Your task to perform on an android device: Open Google Chrome and open the bookmarks view Image 0: 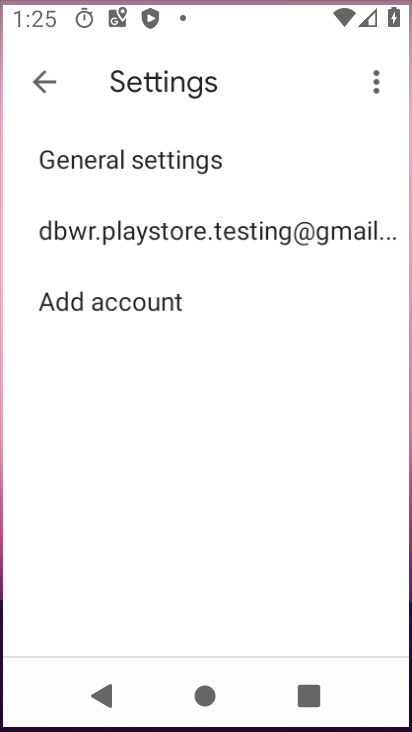
Step 0: press home button
Your task to perform on an android device: Open Google Chrome and open the bookmarks view Image 1: 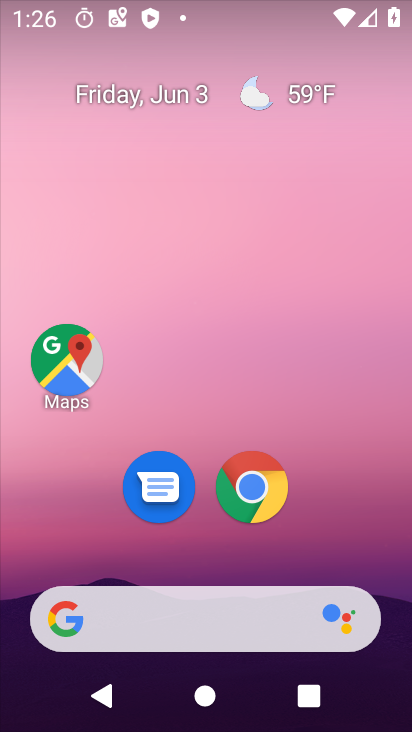
Step 1: drag from (209, 567) to (265, 121)
Your task to perform on an android device: Open Google Chrome and open the bookmarks view Image 2: 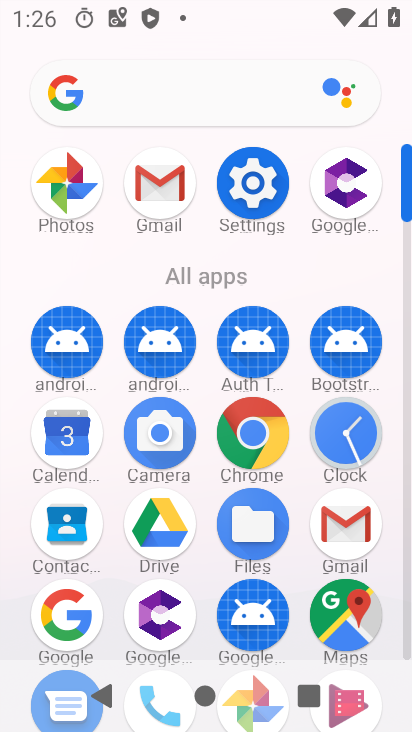
Step 2: click (250, 432)
Your task to perform on an android device: Open Google Chrome and open the bookmarks view Image 3: 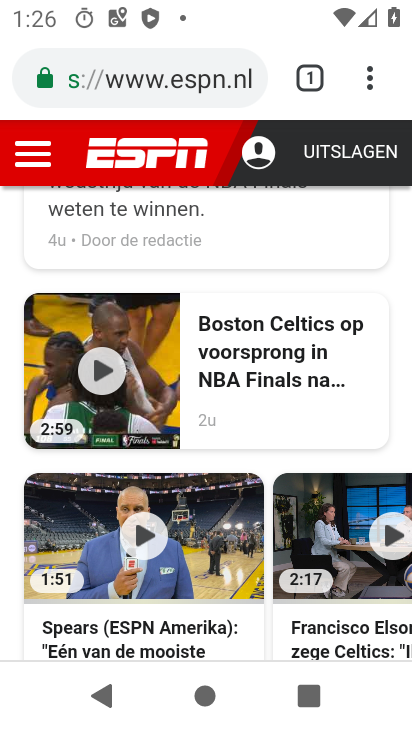
Step 3: click (374, 71)
Your task to perform on an android device: Open Google Chrome and open the bookmarks view Image 4: 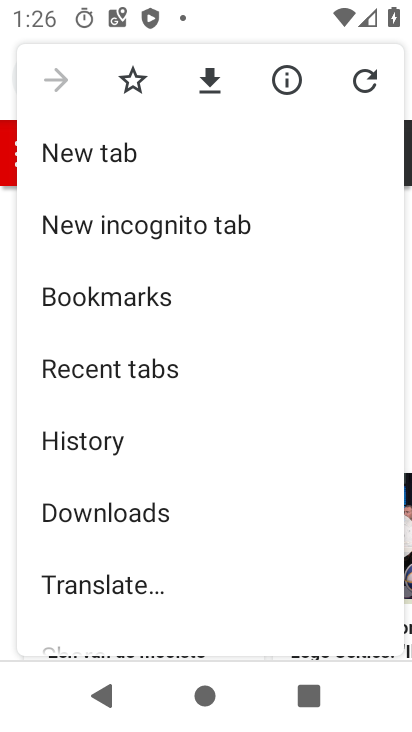
Step 4: drag from (205, 583) to (270, 65)
Your task to perform on an android device: Open Google Chrome and open the bookmarks view Image 5: 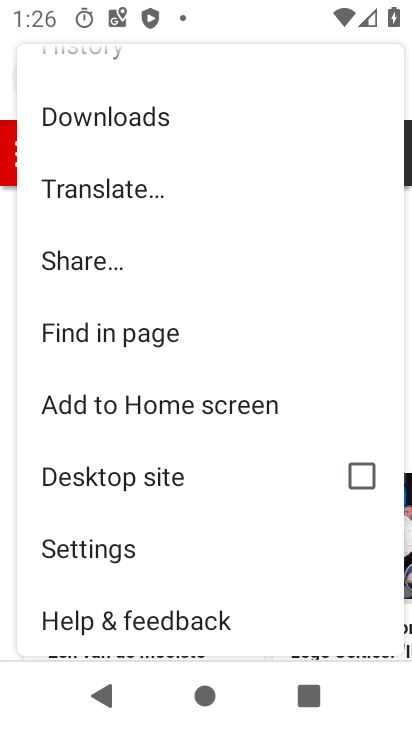
Step 5: drag from (200, 126) to (229, 620)
Your task to perform on an android device: Open Google Chrome and open the bookmarks view Image 6: 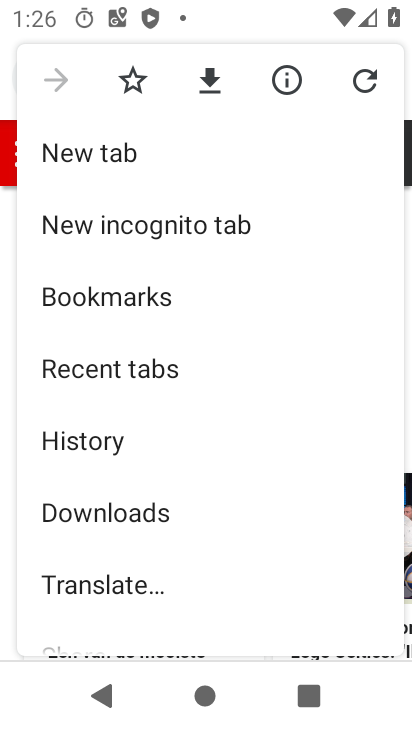
Step 6: click (187, 291)
Your task to perform on an android device: Open Google Chrome and open the bookmarks view Image 7: 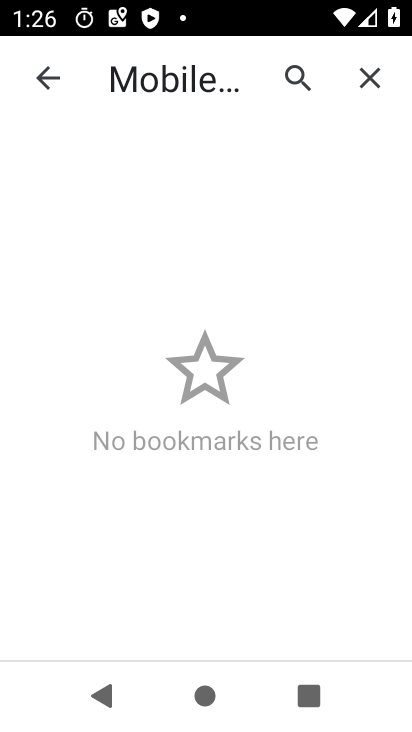
Step 7: task complete